Your task to perform on an android device: What's the weather going to be this weekend? Image 0: 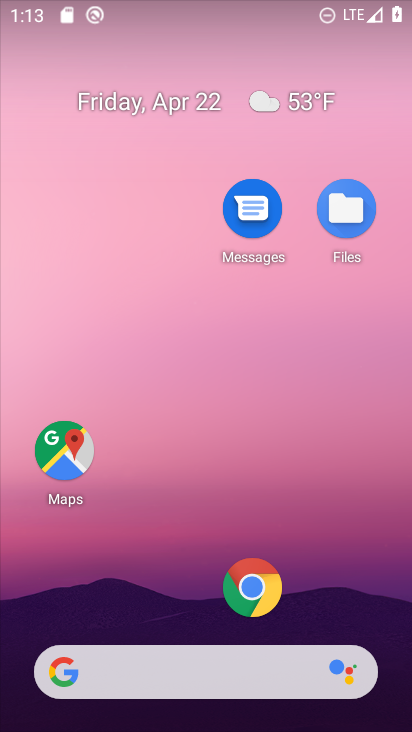
Step 0: drag from (180, 619) to (202, 189)
Your task to perform on an android device: What's the weather going to be this weekend? Image 1: 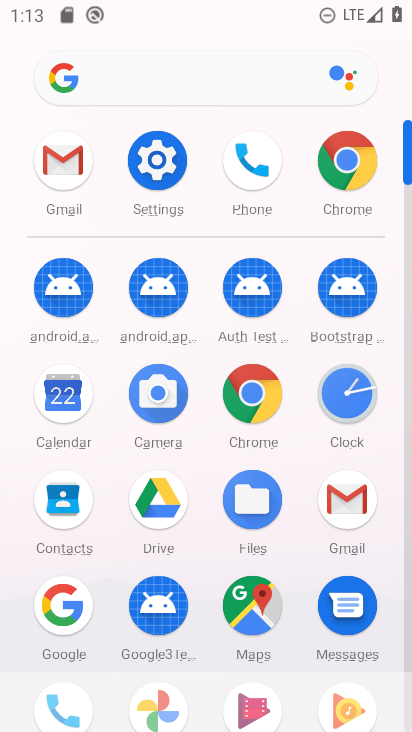
Step 1: click (64, 407)
Your task to perform on an android device: What's the weather going to be this weekend? Image 2: 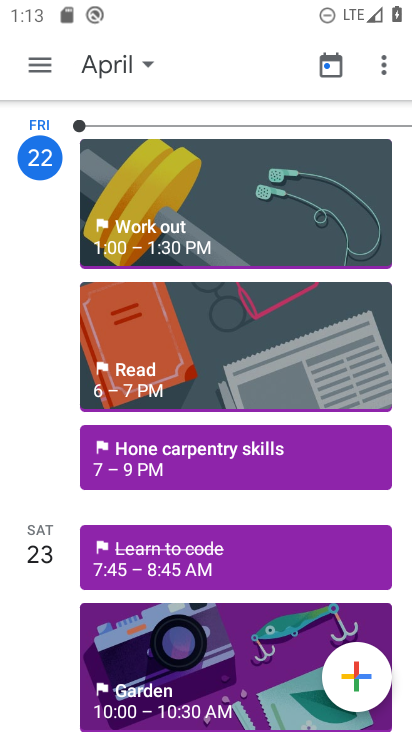
Step 2: click (149, 66)
Your task to perform on an android device: What's the weather going to be this weekend? Image 3: 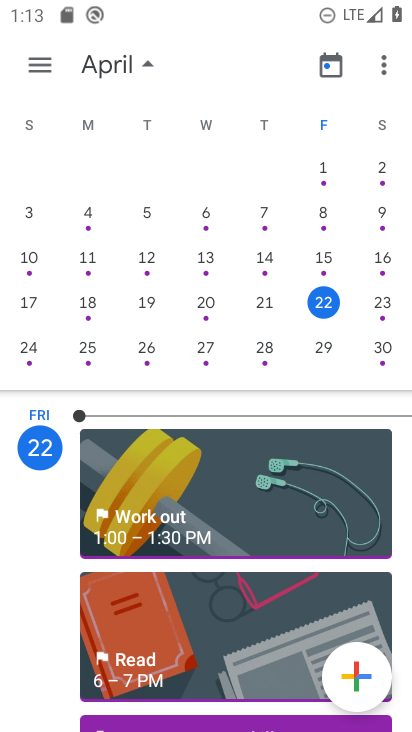
Step 3: click (378, 307)
Your task to perform on an android device: What's the weather going to be this weekend? Image 4: 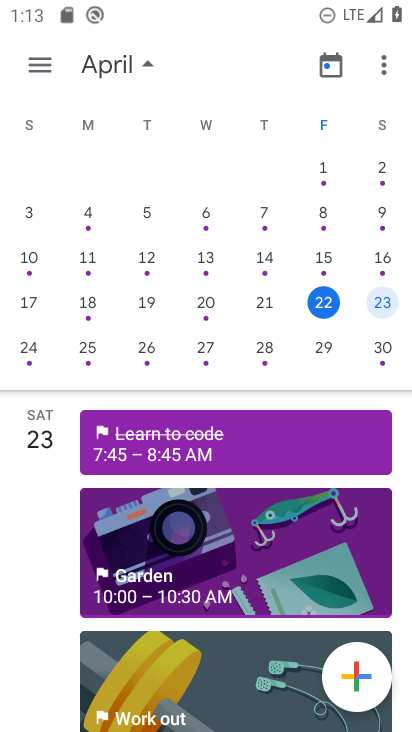
Step 4: click (19, 362)
Your task to perform on an android device: What's the weather going to be this weekend? Image 5: 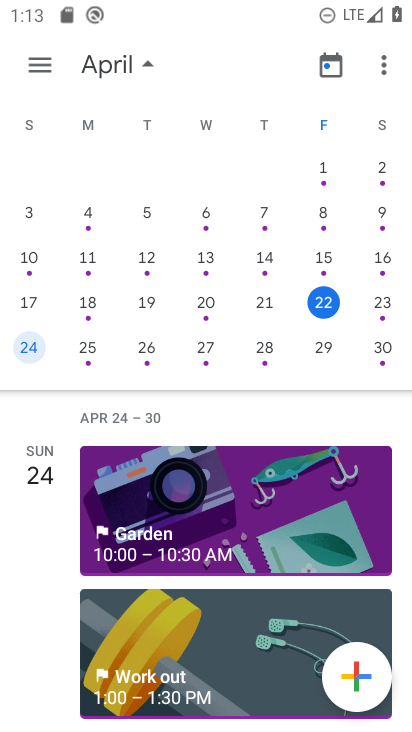
Step 5: task complete